Your task to perform on an android device: Search for seafood restaurants on Google Maps Image 0: 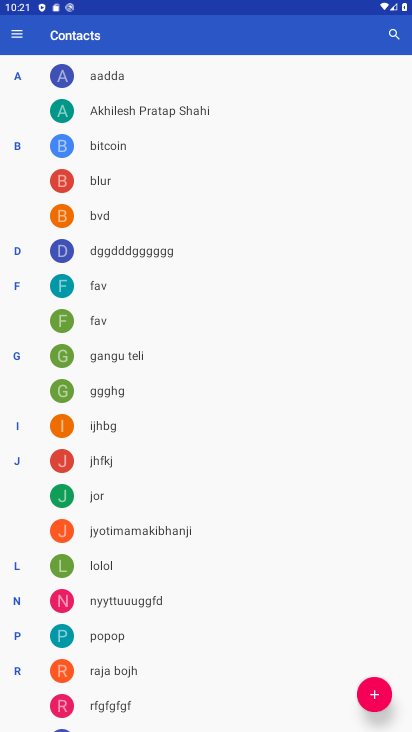
Step 0: press home button
Your task to perform on an android device: Search for seafood restaurants on Google Maps Image 1: 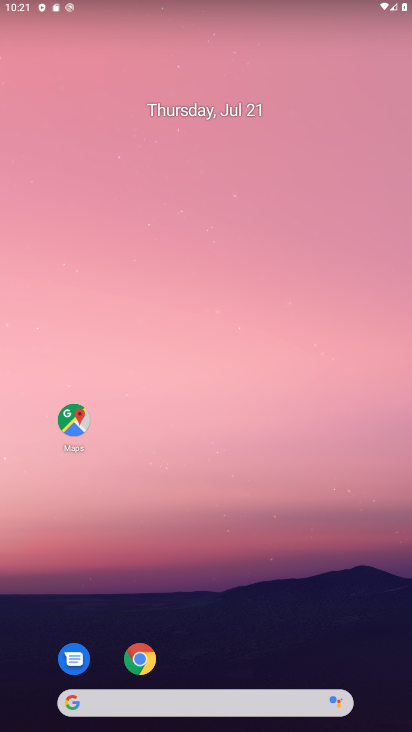
Step 1: click (63, 433)
Your task to perform on an android device: Search for seafood restaurants on Google Maps Image 2: 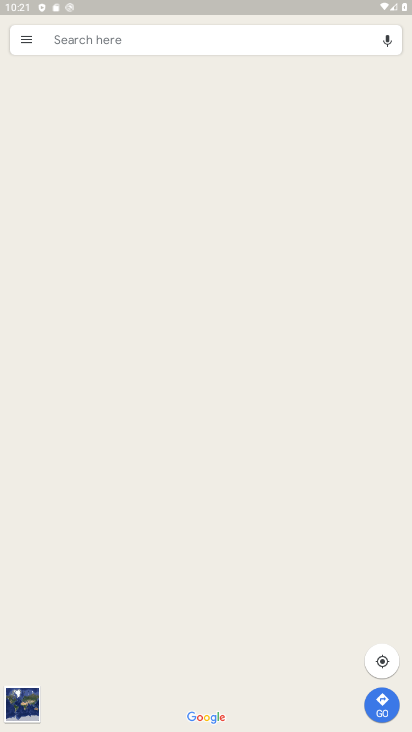
Step 2: click (146, 52)
Your task to perform on an android device: Search for seafood restaurants on Google Maps Image 3: 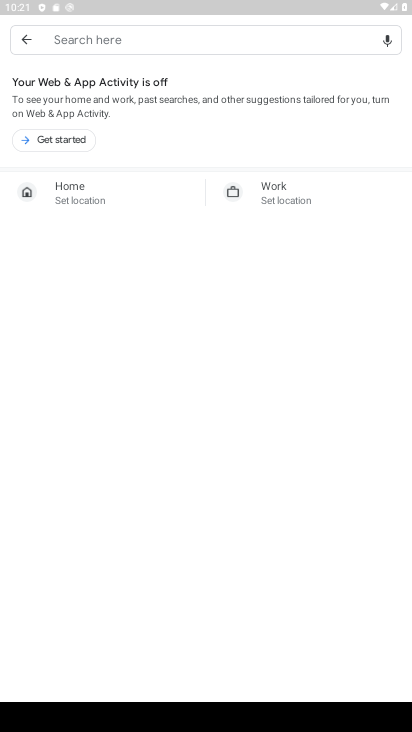
Step 3: click (66, 134)
Your task to perform on an android device: Search for seafood restaurants on Google Maps Image 4: 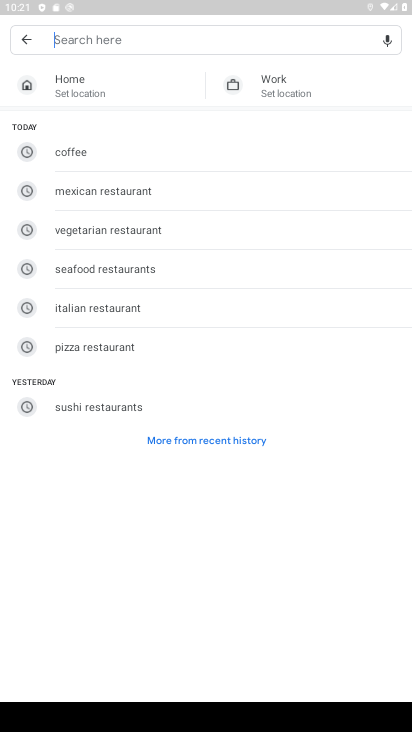
Step 4: click (82, 259)
Your task to perform on an android device: Search for seafood restaurants on Google Maps Image 5: 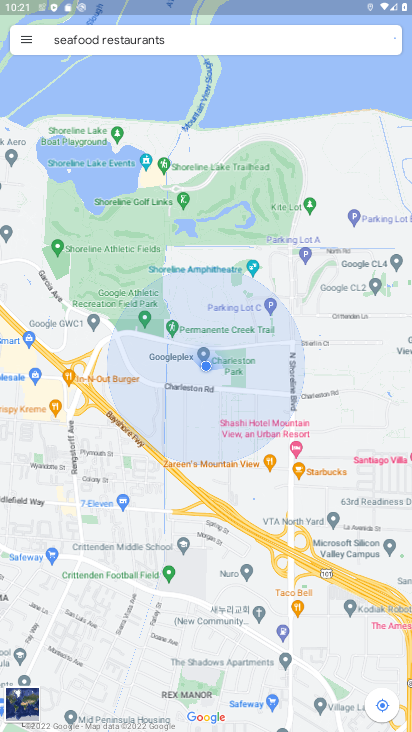
Step 5: task complete